Your task to perform on an android device: add a contact Image 0: 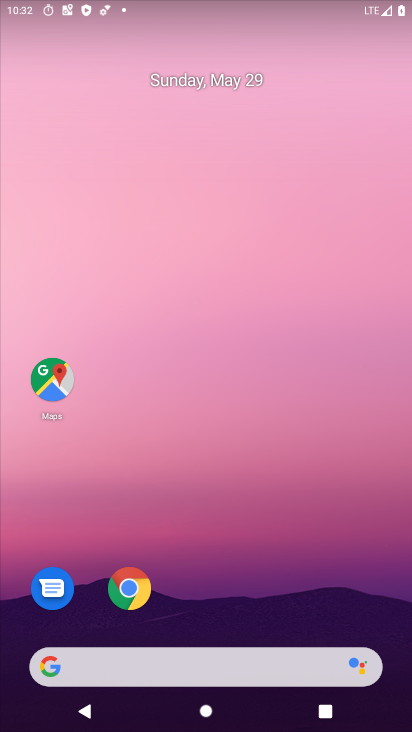
Step 0: drag from (265, 555) to (207, 139)
Your task to perform on an android device: add a contact Image 1: 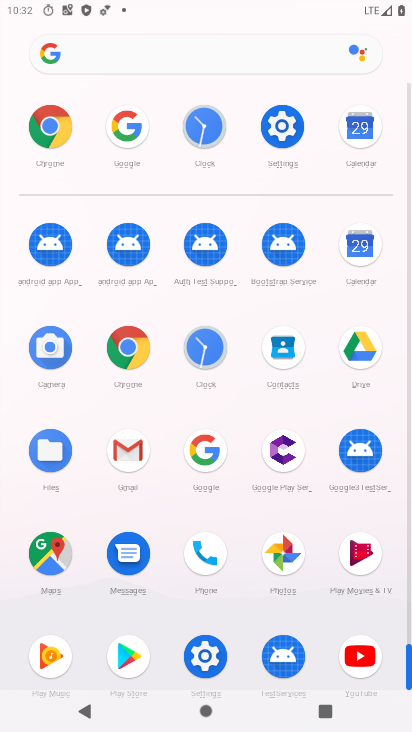
Step 1: click (287, 361)
Your task to perform on an android device: add a contact Image 2: 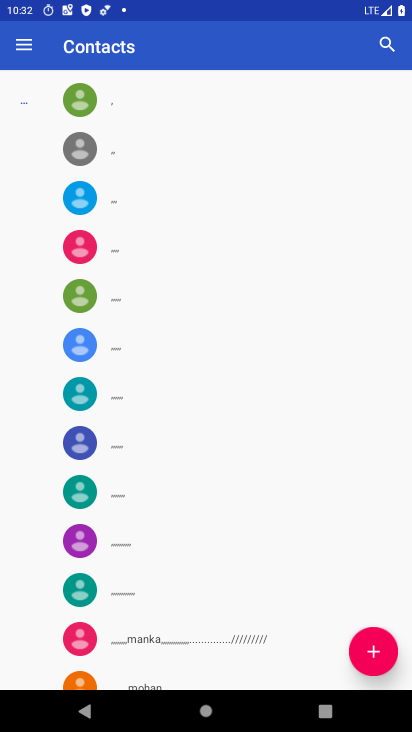
Step 2: click (375, 665)
Your task to perform on an android device: add a contact Image 3: 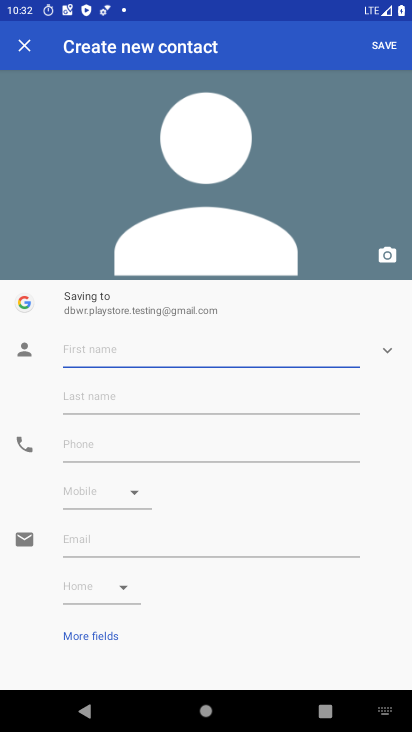
Step 3: click (180, 344)
Your task to perform on an android device: add a contact Image 4: 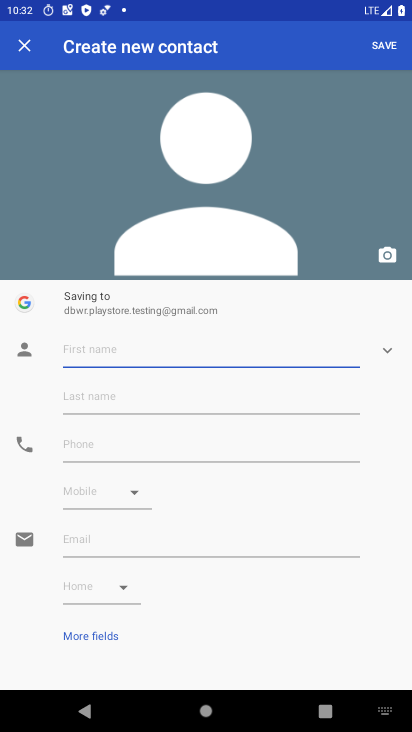
Step 4: type "jhjgfhkgfgd"
Your task to perform on an android device: add a contact Image 5: 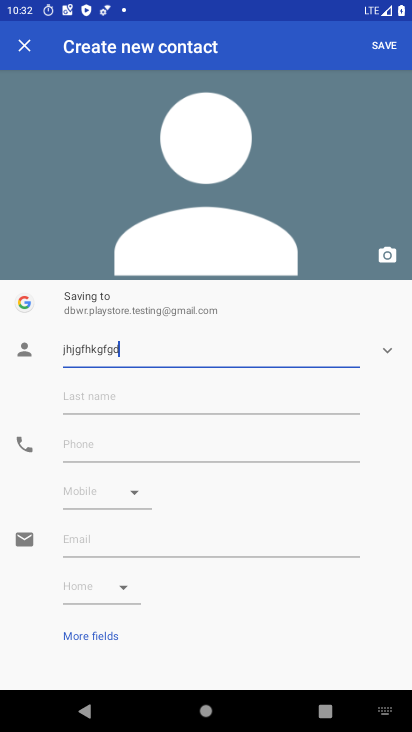
Step 5: type ""
Your task to perform on an android device: add a contact Image 6: 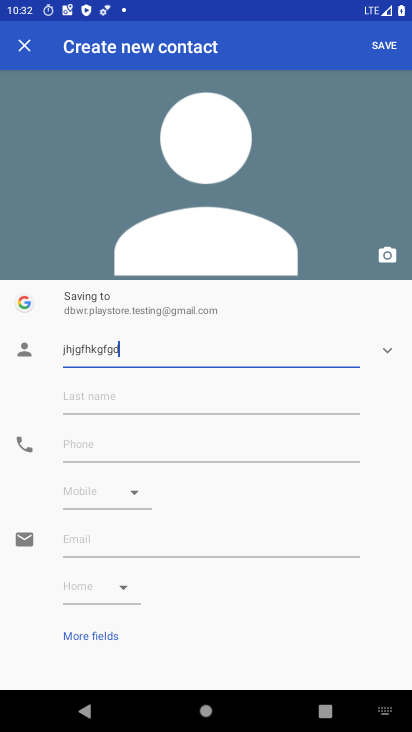
Step 6: click (168, 440)
Your task to perform on an android device: add a contact Image 7: 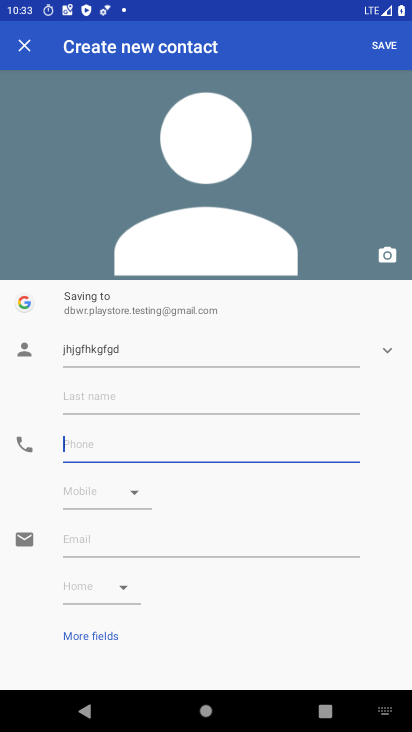
Step 7: click (381, 47)
Your task to perform on an android device: add a contact Image 8: 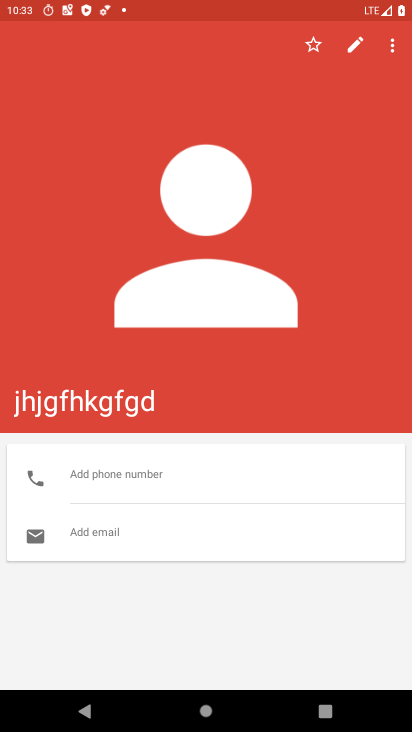
Step 8: task complete